Your task to perform on an android device: open chrome and create a bookmark for the current page Image 0: 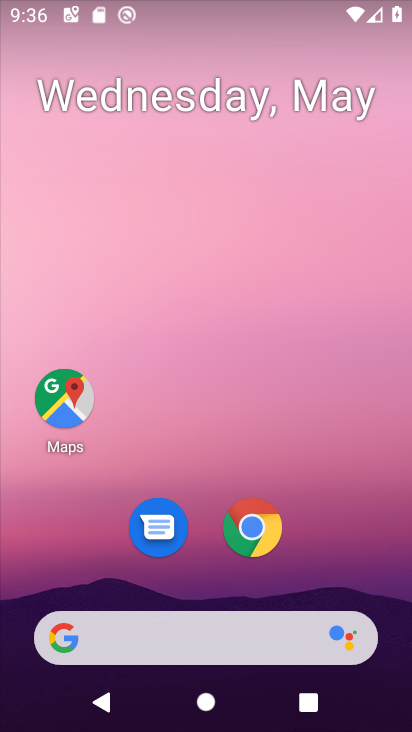
Step 0: click (257, 525)
Your task to perform on an android device: open chrome and create a bookmark for the current page Image 1: 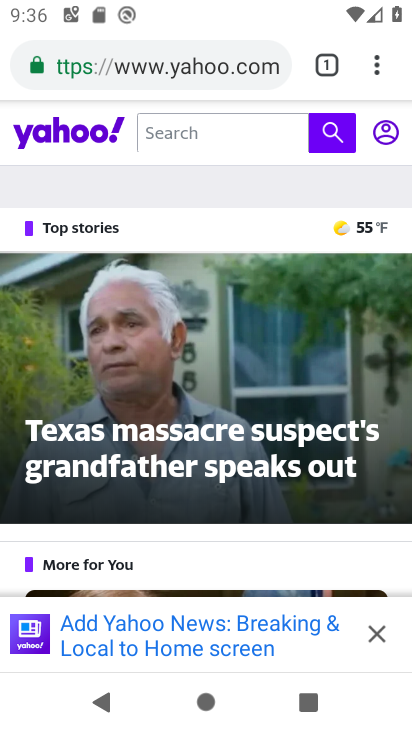
Step 1: click (373, 70)
Your task to perform on an android device: open chrome and create a bookmark for the current page Image 2: 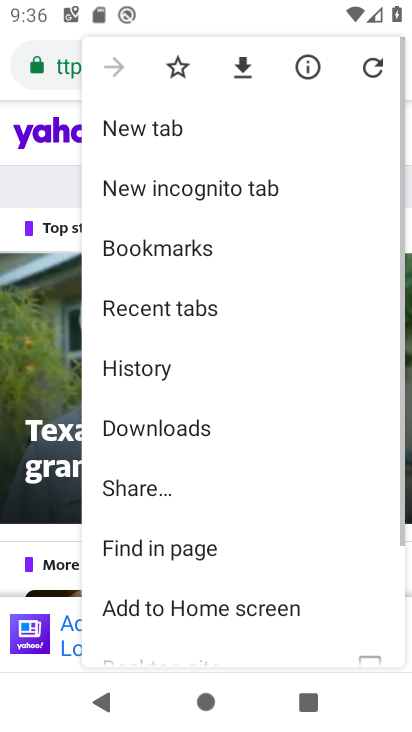
Step 2: click (178, 71)
Your task to perform on an android device: open chrome and create a bookmark for the current page Image 3: 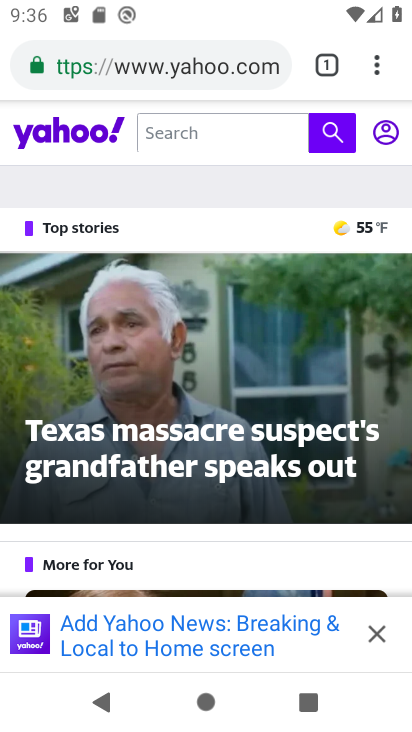
Step 3: task complete